Your task to perform on an android device: Open Amazon Image 0: 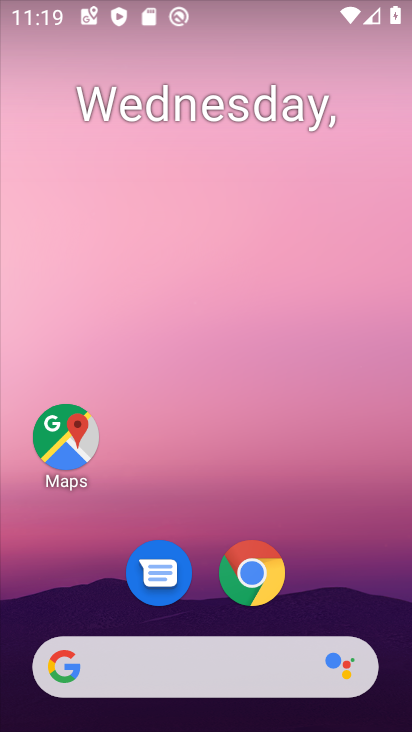
Step 0: click (246, 576)
Your task to perform on an android device: Open Amazon Image 1: 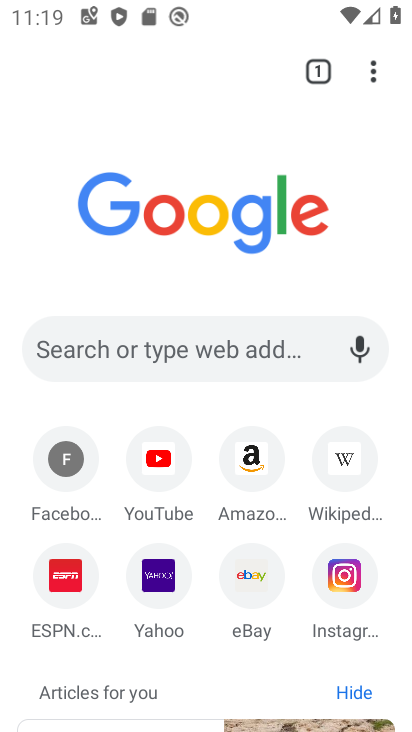
Step 1: click (249, 467)
Your task to perform on an android device: Open Amazon Image 2: 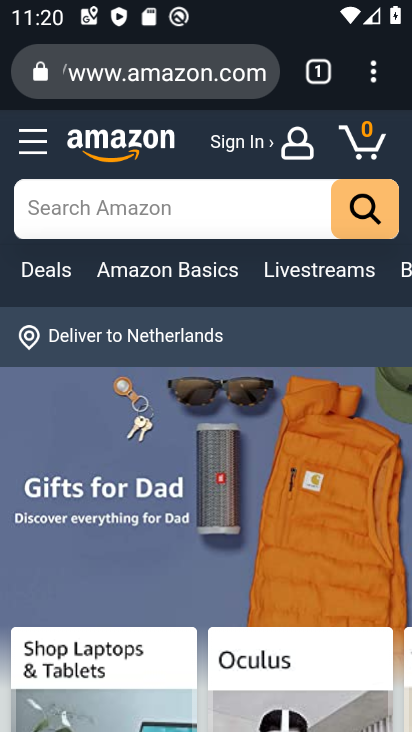
Step 2: task complete